Your task to perform on an android device: stop showing notifications on the lock screen Image 0: 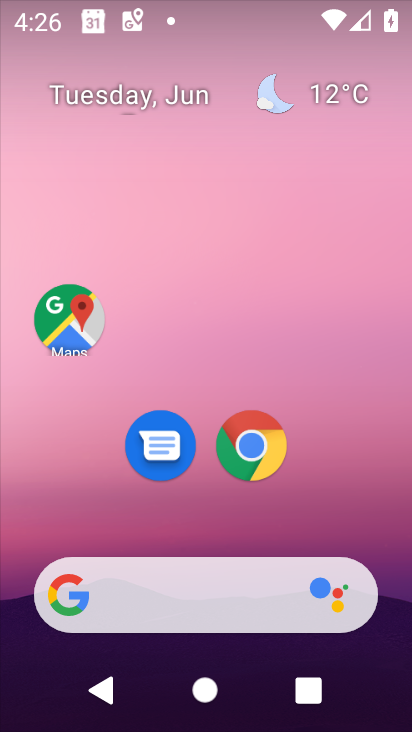
Step 0: drag from (353, 469) to (335, 9)
Your task to perform on an android device: stop showing notifications on the lock screen Image 1: 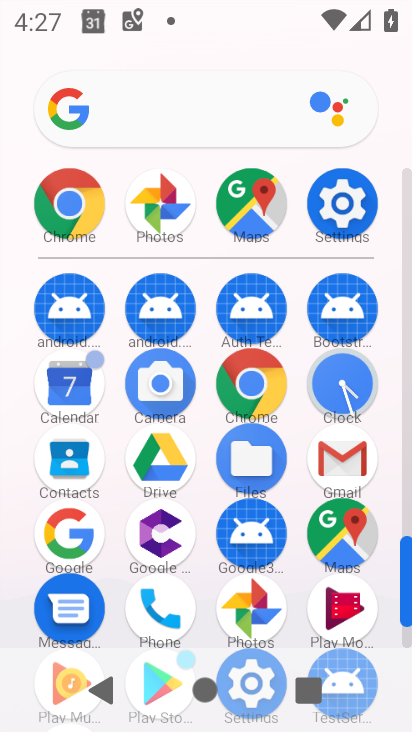
Step 1: click (353, 219)
Your task to perform on an android device: stop showing notifications on the lock screen Image 2: 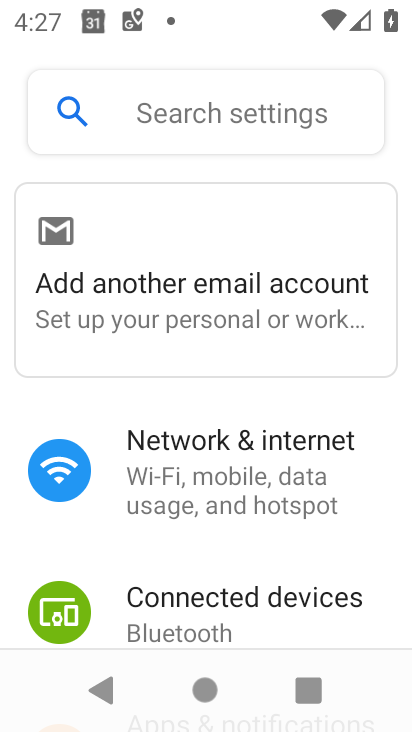
Step 2: drag from (217, 583) to (235, 126)
Your task to perform on an android device: stop showing notifications on the lock screen Image 3: 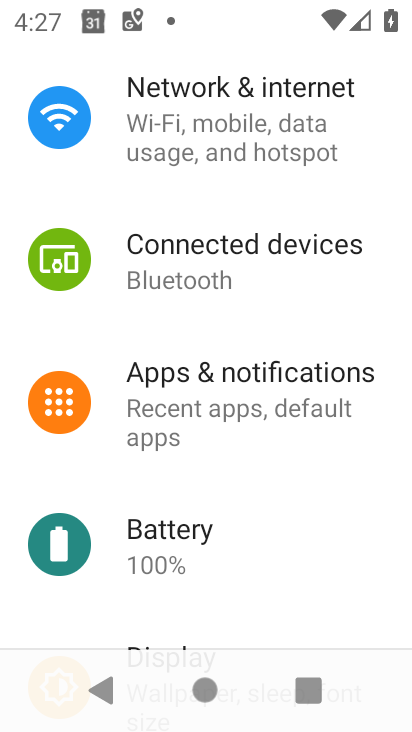
Step 3: click (261, 392)
Your task to perform on an android device: stop showing notifications on the lock screen Image 4: 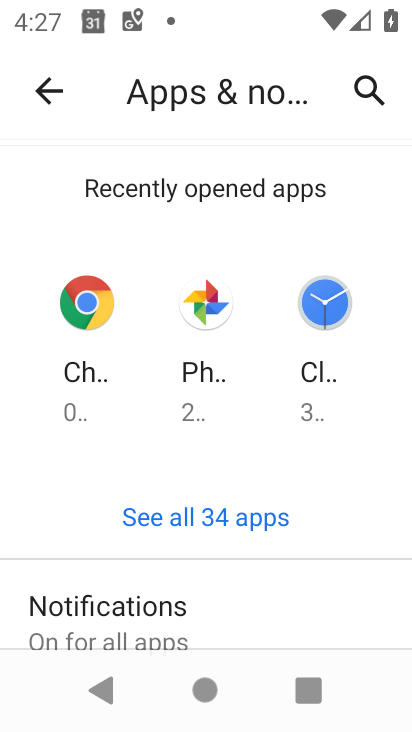
Step 4: drag from (169, 548) to (207, 202)
Your task to perform on an android device: stop showing notifications on the lock screen Image 5: 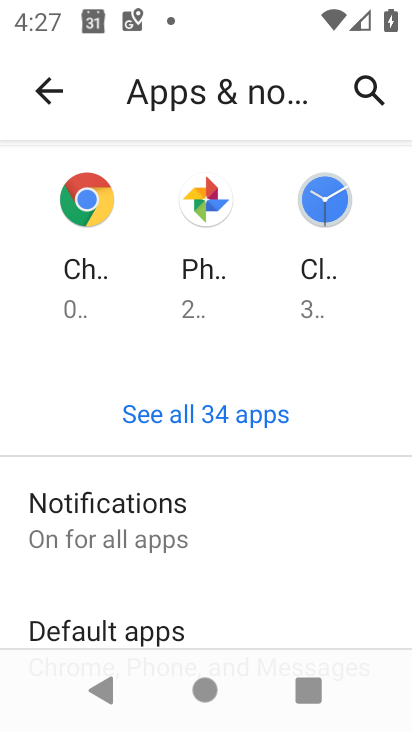
Step 5: click (85, 503)
Your task to perform on an android device: stop showing notifications on the lock screen Image 6: 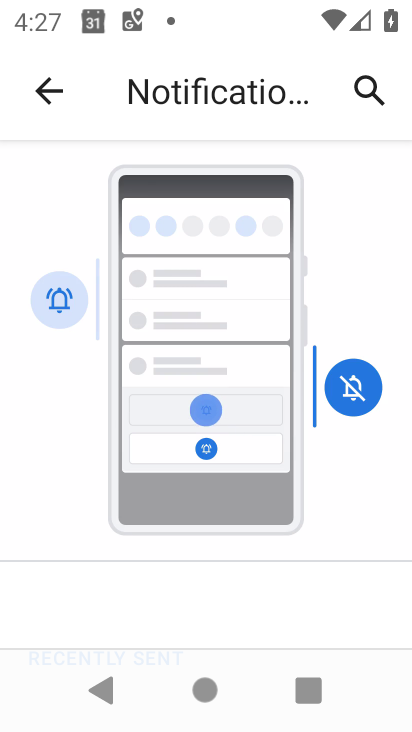
Step 6: drag from (117, 603) to (160, 174)
Your task to perform on an android device: stop showing notifications on the lock screen Image 7: 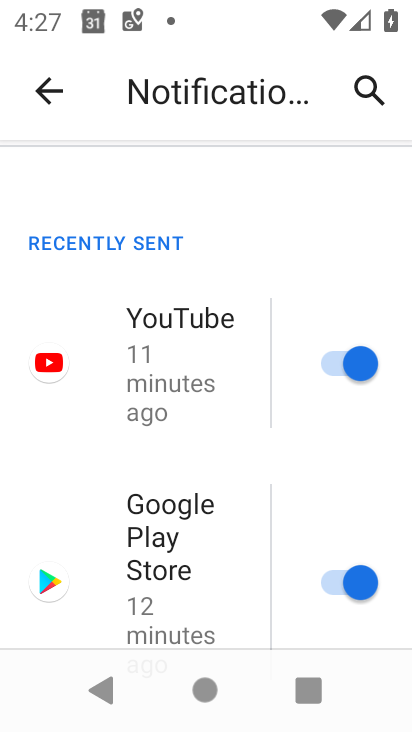
Step 7: drag from (139, 578) to (181, 185)
Your task to perform on an android device: stop showing notifications on the lock screen Image 8: 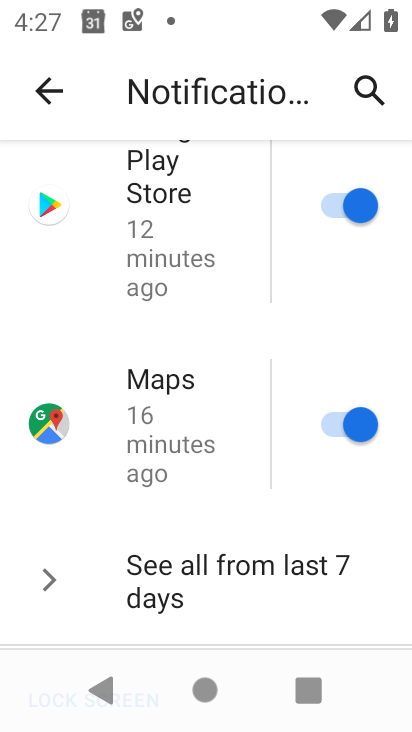
Step 8: drag from (144, 567) to (204, 135)
Your task to perform on an android device: stop showing notifications on the lock screen Image 9: 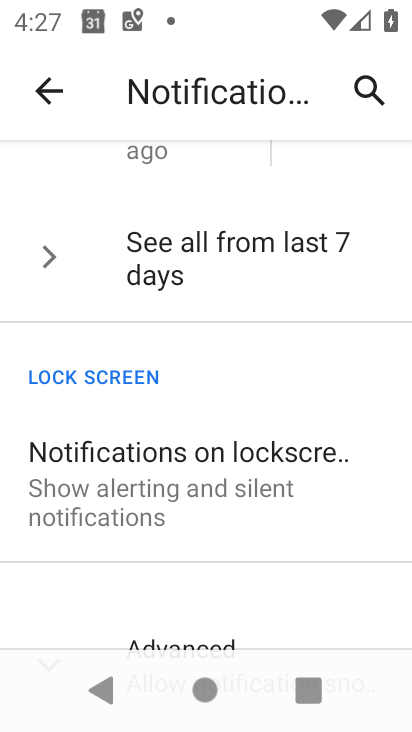
Step 9: click (184, 492)
Your task to perform on an android device: stop showing notifications on the lock screen Image 10: 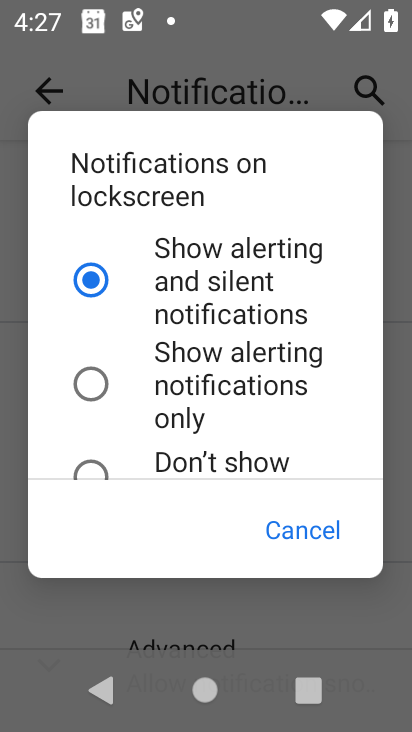
Step 10: click (125, 395)
Your task to perform on an android device: stop showing notifications on the lock screen Image 11: 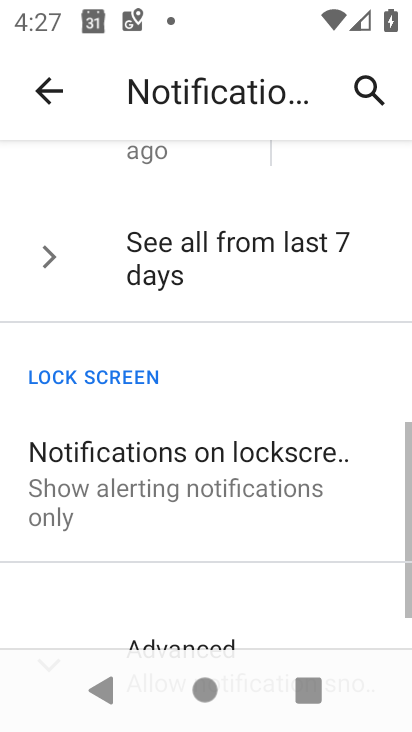
Step 11: task complete